Your task to perform on an android device: check out phone information Image 0: 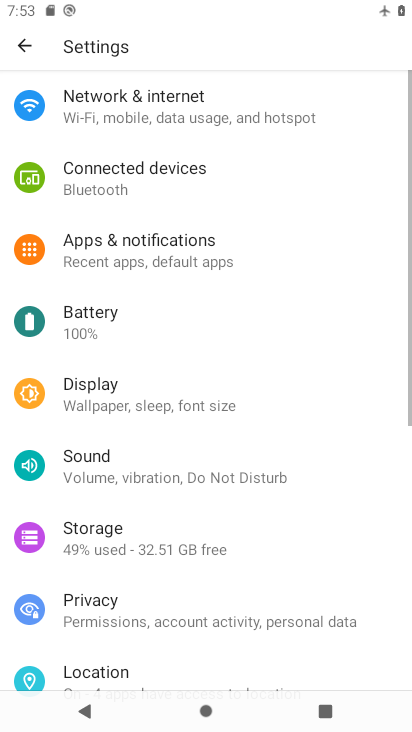
Step 0: press home button
Your task to perform on an android device: check out phone information Image 1: 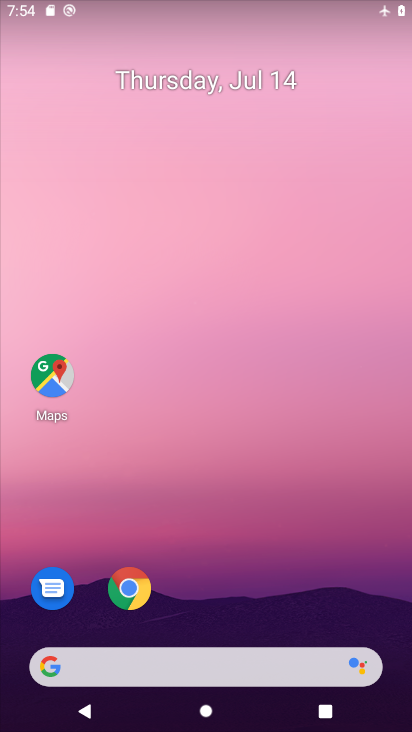
Step 1: drag from (238, 632) to (173, 7)
Your task to perform on an android device: check out phone information Image 2: 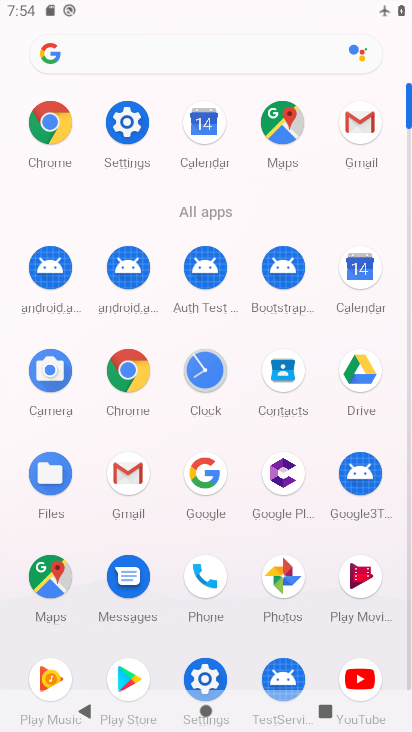
Step 2: click (125, 117)
Your task to perform on an android device: check out phone information Image 3: 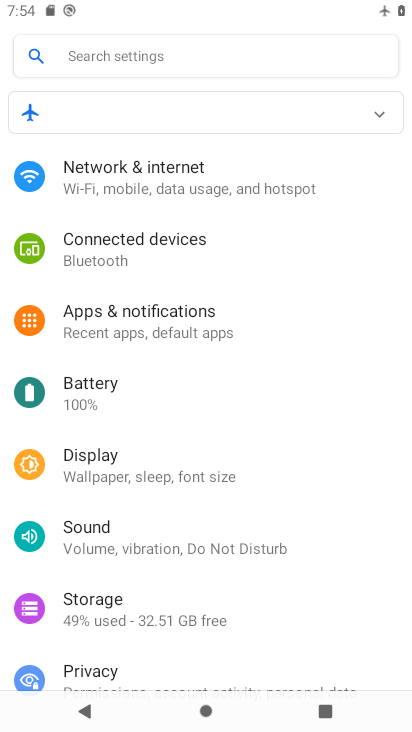
Step 3: task complete